Your task to perform on an android device: Open Yahoo.com Image 0: 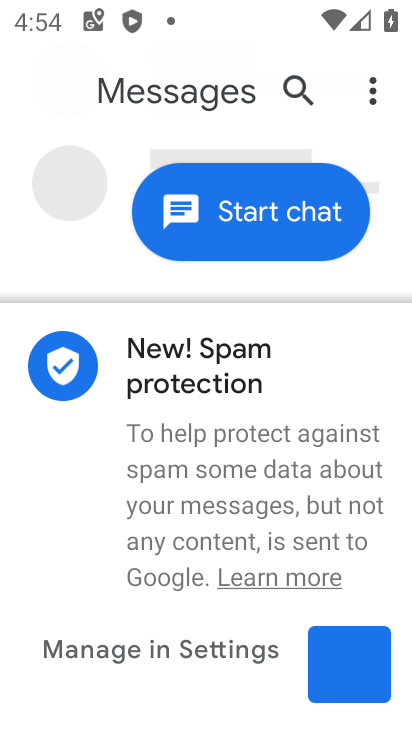
Step 0: press back button
Your task to perform on an android device: Open Yahoo.com Image 1: 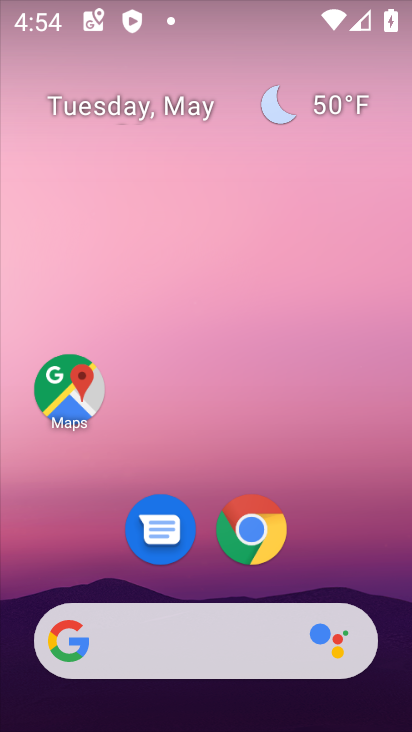
Step 1: drag from (374, 548) to (225, 3)
Your task to perform on an android device: Open Yahoo.com Image 2: 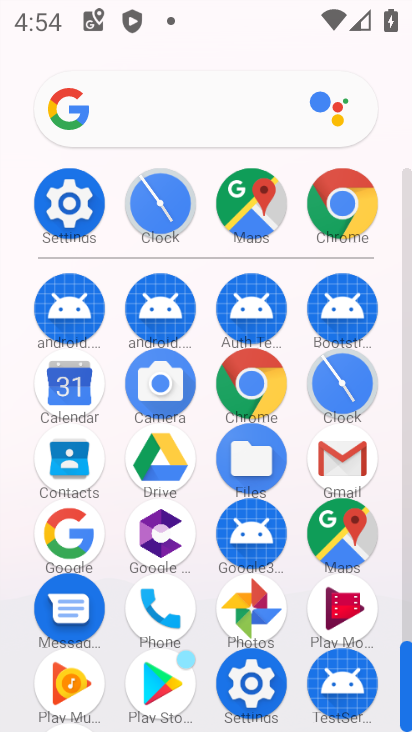
Step 2: drag from (23, 578) to (12, 218)
Your task to perform on an android device: Open Yahoo.com Image 3: 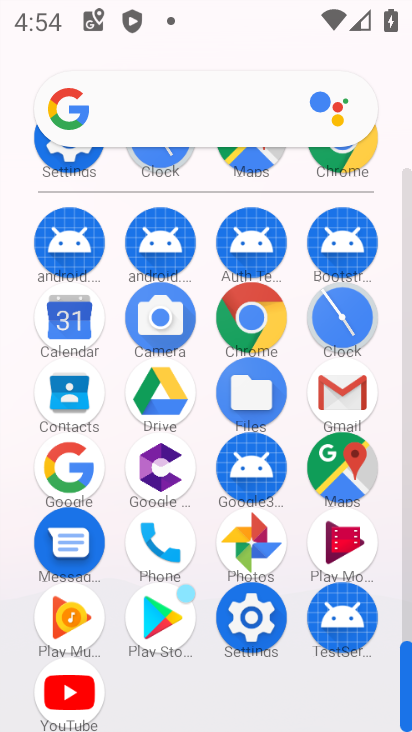
Step 3: click (251, 317)
Your task to perform on an android device: Open Yahoo.com Image 4: 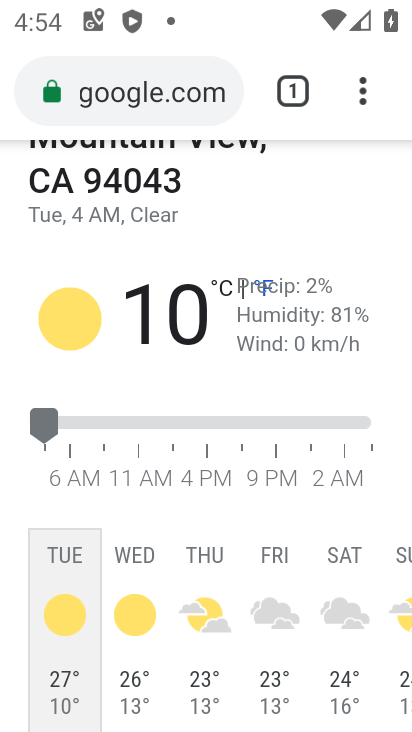
Step 4: click (163, 92)
Your task to perform on an android device: Open Yahoo.com Image 5: 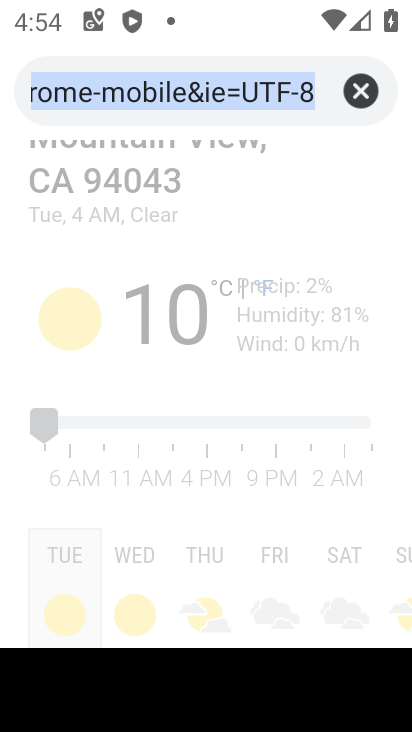
Step 5: click (357, 99)
Your task to perform on an android device: Open Yahoo.com Image 6: 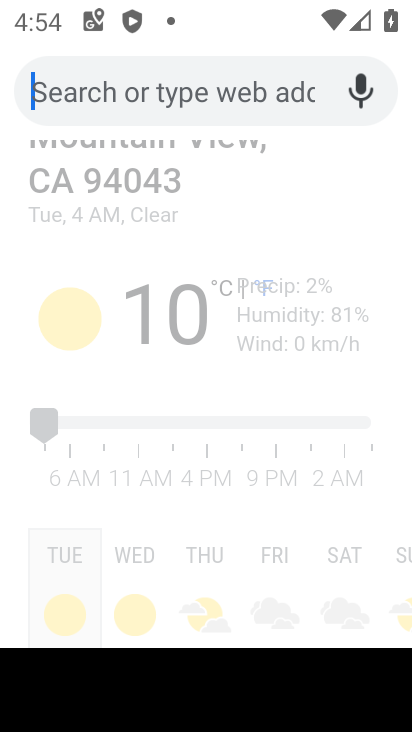
Step 6: type "Yahoo.com"
Your task to perform on an android device: Open Yahoo.com Image 7: 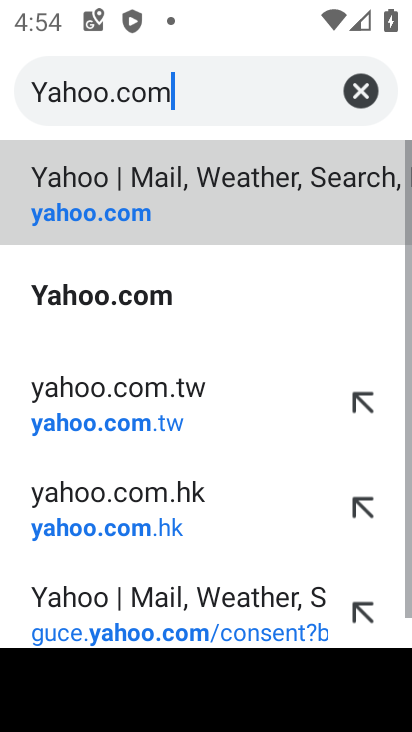
Step 7: click (271, 202)
Your task to perform on an android device: Open Yahoo.com Image 8: 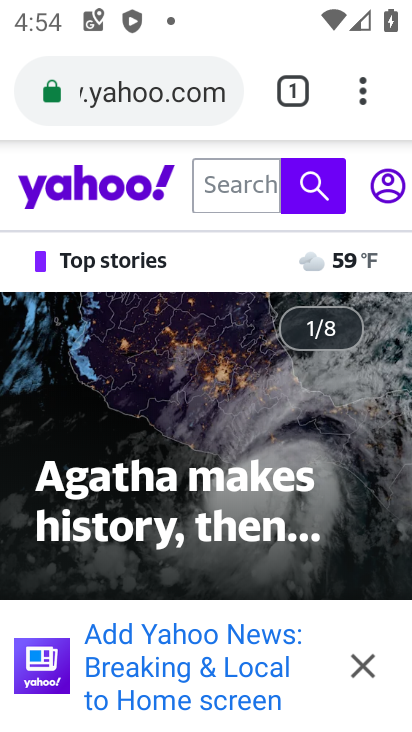
Step 8: click (361, 658)
Your task to perform on an android device: Open Yahoo.com Image 9: 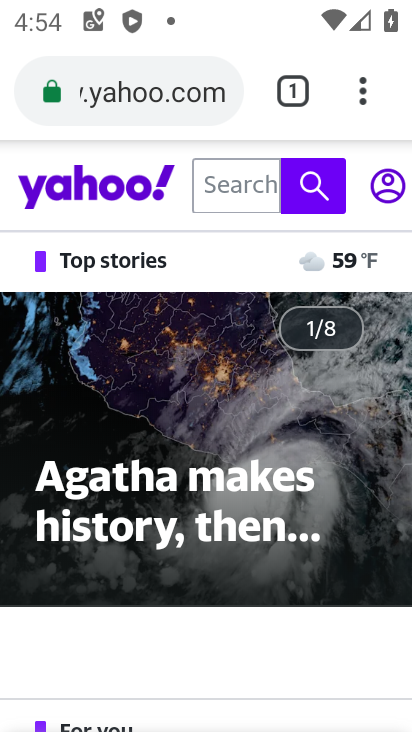
Step 9: task complete